Your task to perform on an android device: turn off priority inbox in the gmail app Image 0: 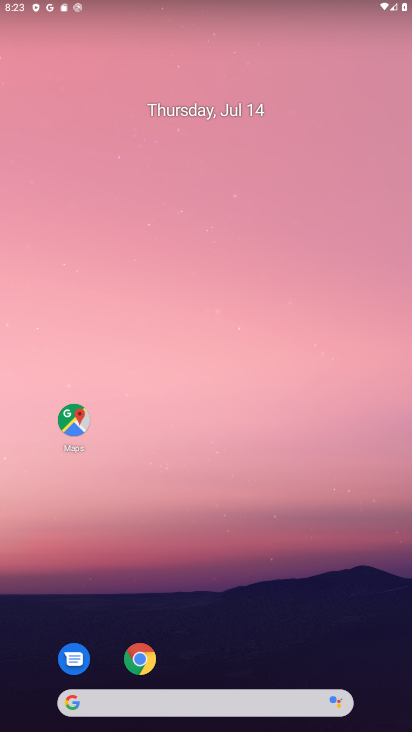
Step 0: drag from (209, 606) to (199, 7)
Your task to perform on an android device: turn off priority inbox in the gmail app Image 1: 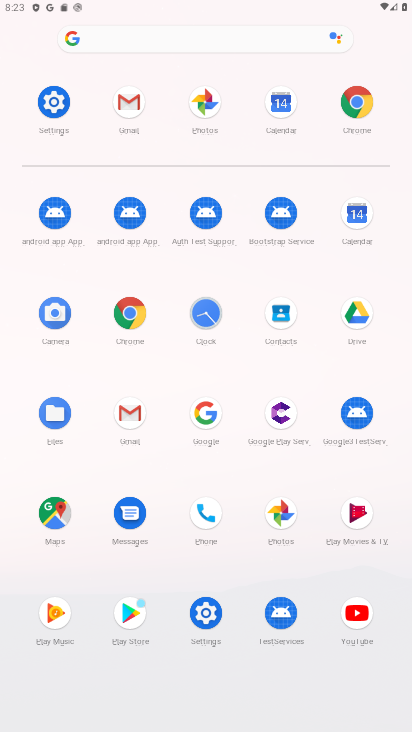
Step 1: click (123, 111)
Your task to perform on an android device: turn off priority inbox in the gmail app Image 2: 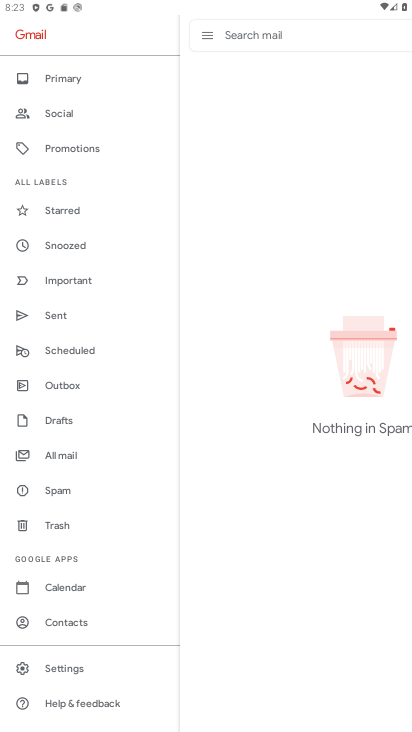
Step 2: click (65, 673)
Your task to perform on an android device: turn off priority inbox in the gmail app Image 3: 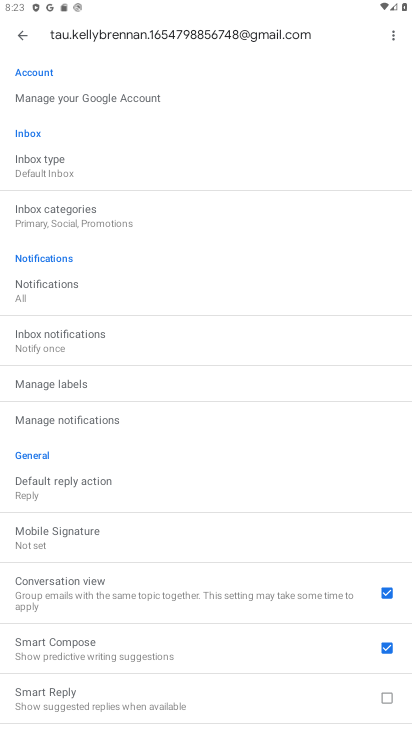
Step 3: click (40, 164)
Your task to perform on an android device: turn off priority inbox in the gmail app Image 4: 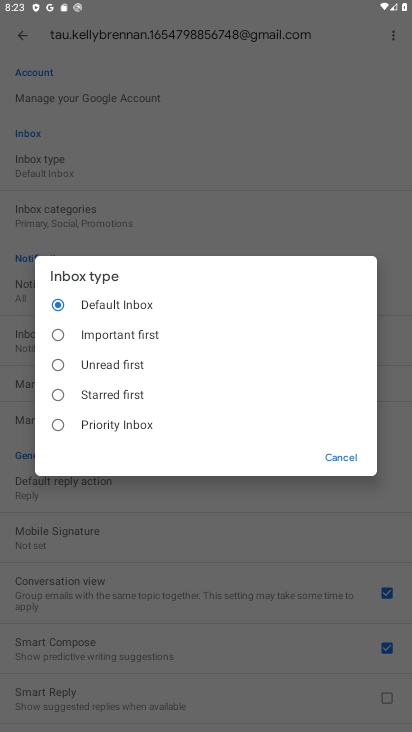
Step 4: task complete